Your task to perform on an android device: turn on the 12-hour format for clock Image 0: 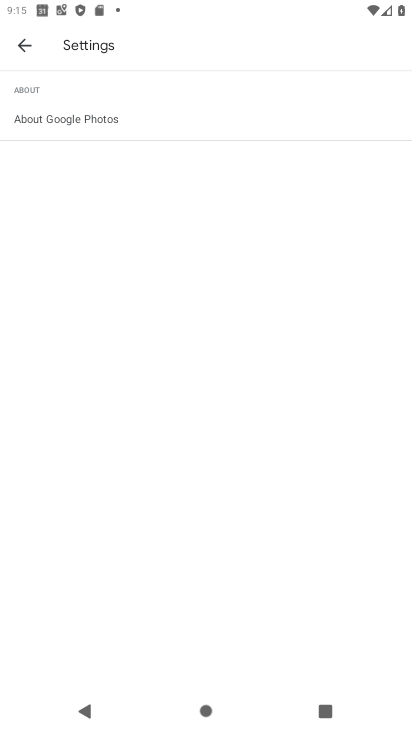
Step 0: press home button
Your task to perform on an android device: turn on the 12-hour format for clock Image 1: 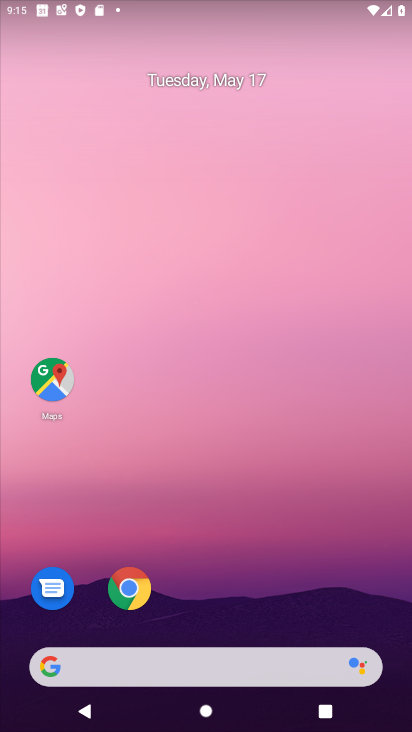
Step 1: drag from (219, 570) to (247, 211)
Your task to perform on an android device: turn on the 12-hour format for clock Image 2: 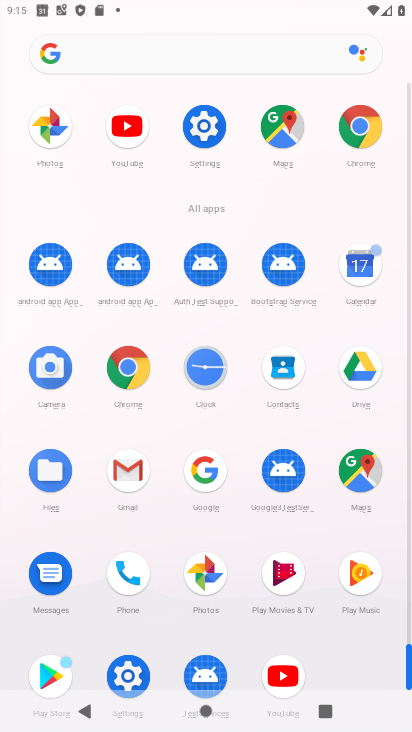
Step 2: click (361, 262)
Your task to perform on an android device: turn on the 12-hour format for clock Image 3: 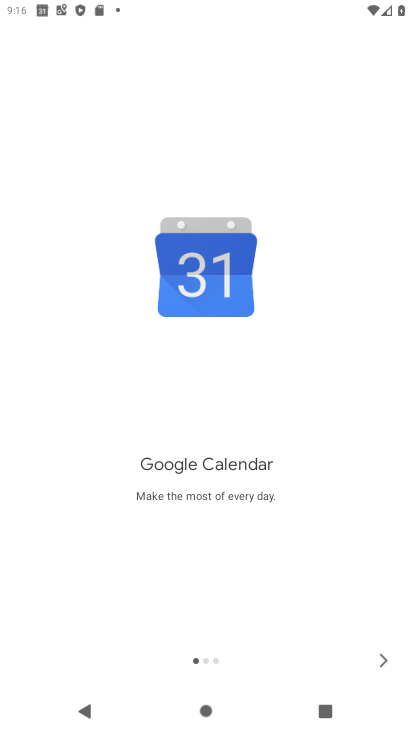
Step 3: click (372, 652)
Your task to perform on an android device: turn on the 12-hour format for clock Image 4: 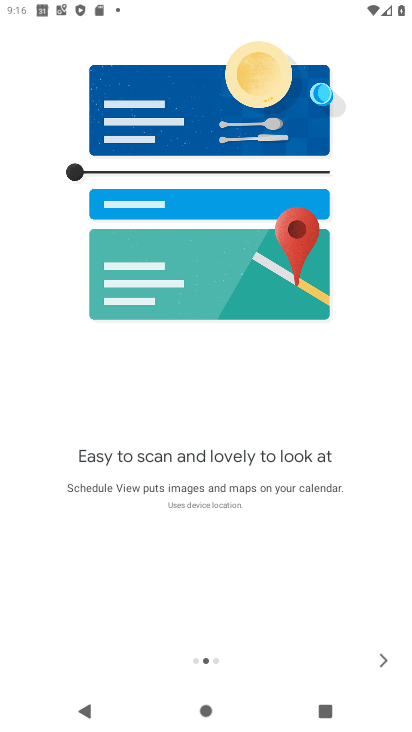
Step 4: click (367, 662)
Your task to perform on an android device: turn on the 12-hour format for clock Image 5: 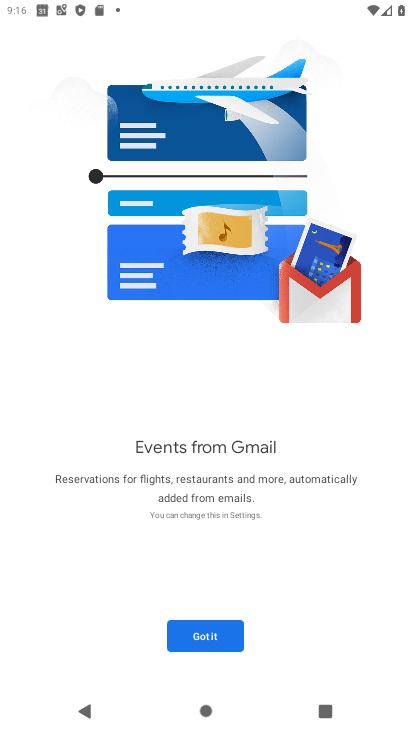
Step 5: click (226, 630)
Your task to perform on an android device: turn on the 12-hour format for clock Image 6: 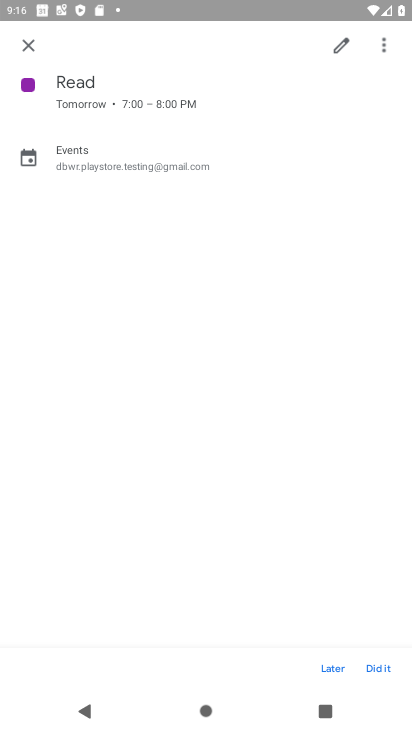
Step 6: click (29, 48)
Your task to perform on an android device: turn on the 12-hour format for clock Image 7: 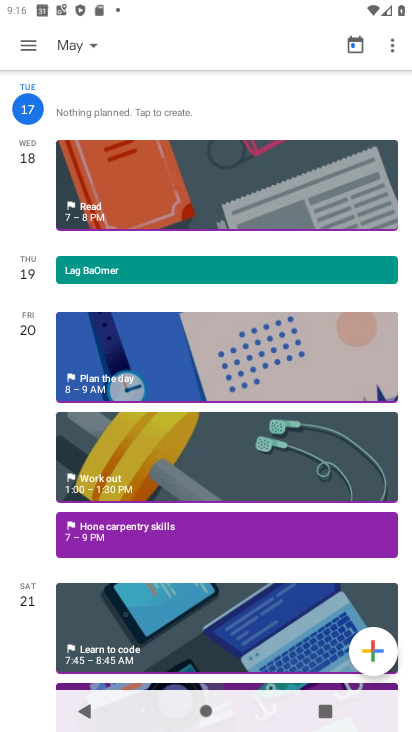
Step 7: click (388, 61)
Your task to perform on an android device: turn on the 12-hour format for clock Image 8: 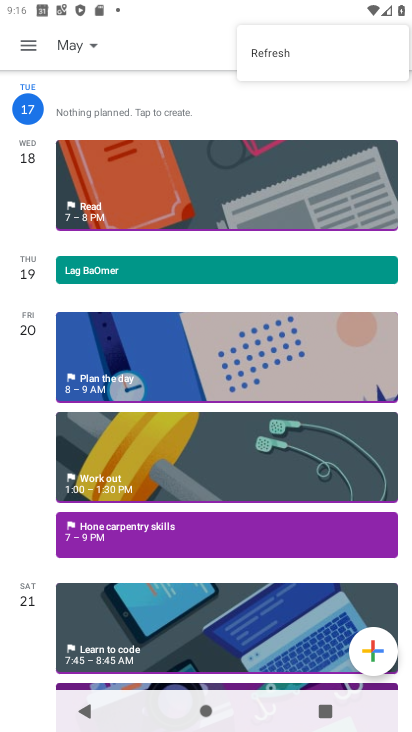
Step 8: click (144, 63)
Your task to perform on an android device: turn on the 12-hour format for clock Image 9: 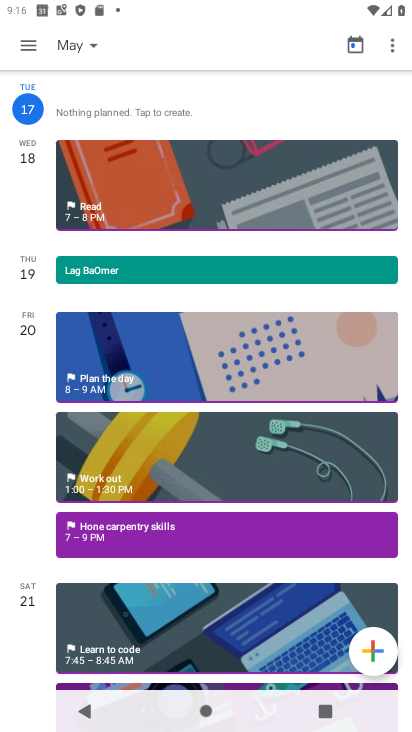
Step 9: click (25, 41)
Your task to perform on an android device: turn on the 12-hour format for clock Image 10: 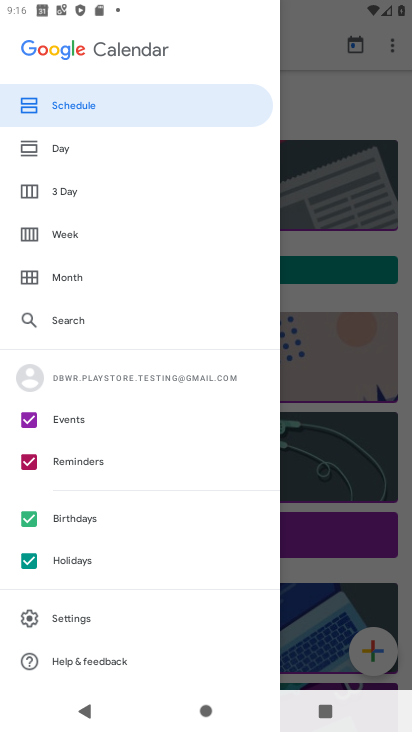
Step 10: press home button
Your task to perform on an android device: turn on the 12-hour format for clock Image 11: 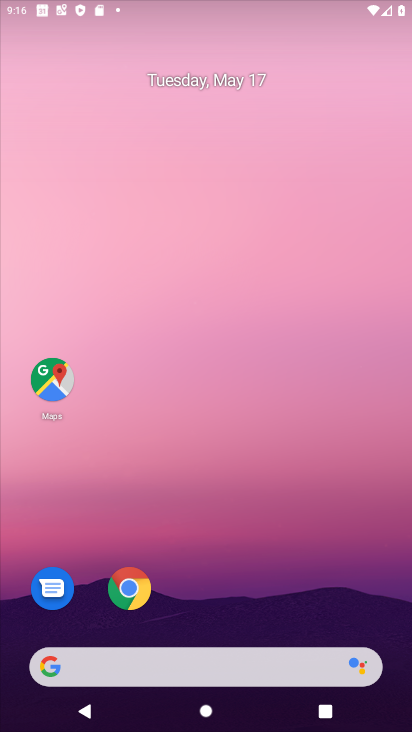
Step 11: drag from (268, 414) to (291, 181)
Your task to perform on an android device: turn on the 12-hour format for clock Image 12: 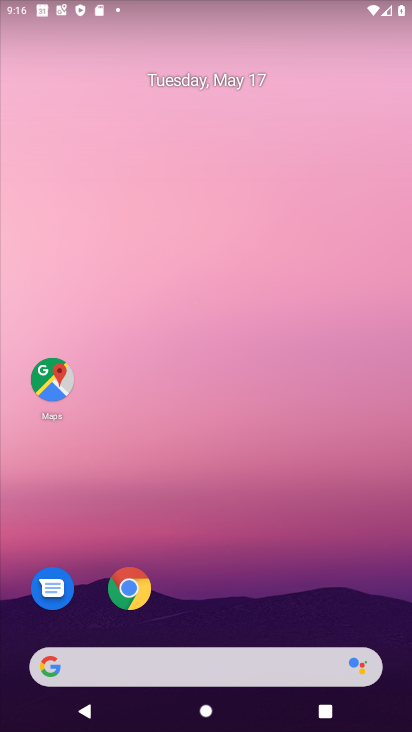
Step 12: drag from (290, 504) to (289, 224)
Your task to perform on an android device: turn on the 12-hour format for clock Image 13: 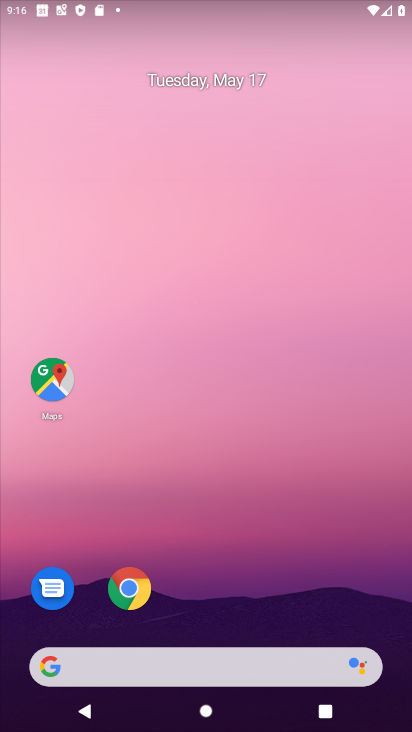
Step 13: drag from (314, 520) to (315, 190)
Your task to perform on an android device: turn on the 12-hour format for clock Image 14: 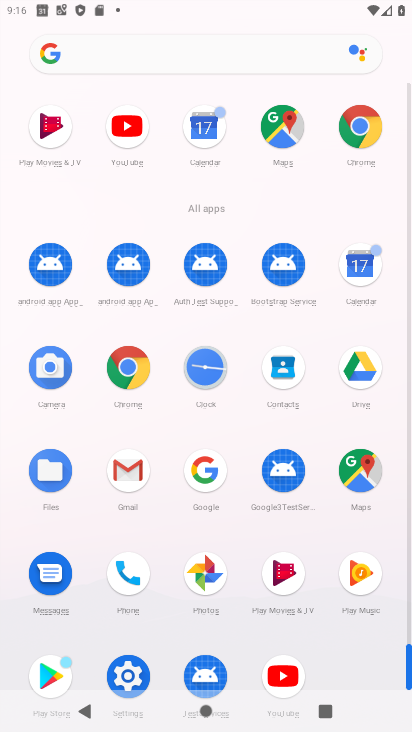
Step 14: click (202, 363)
Your task to perform on an android device: turn on the 12-hour format for clock Image 15: 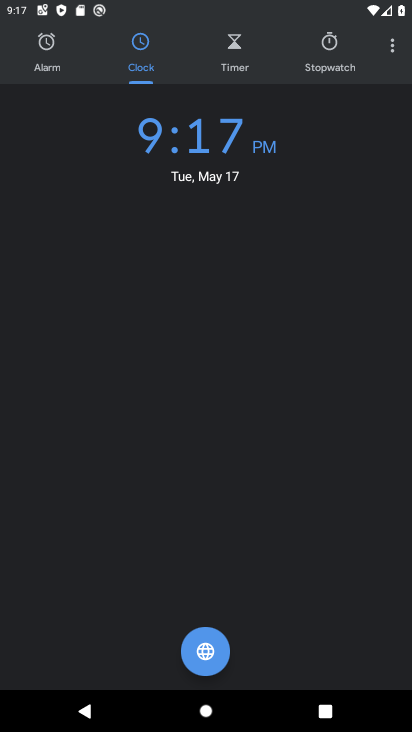
Step 15: click (384, 53)
Your task to perform on an android device: turn on the 12-hour format for clock Image 16: 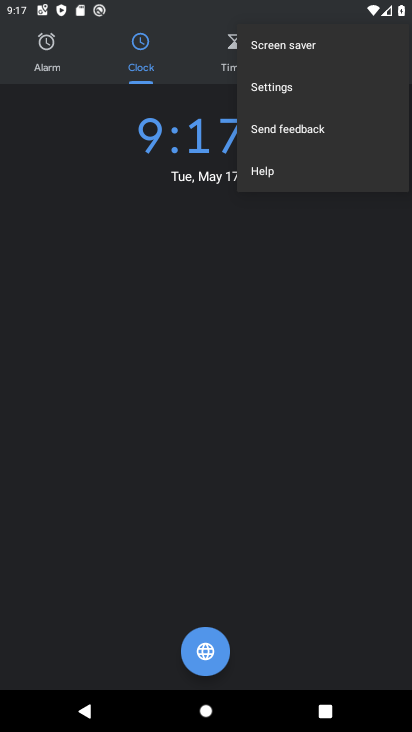
Step 16: click (256, 94)
Your task to perform on an android device: turn on the 12-hour format for clock Image 17: 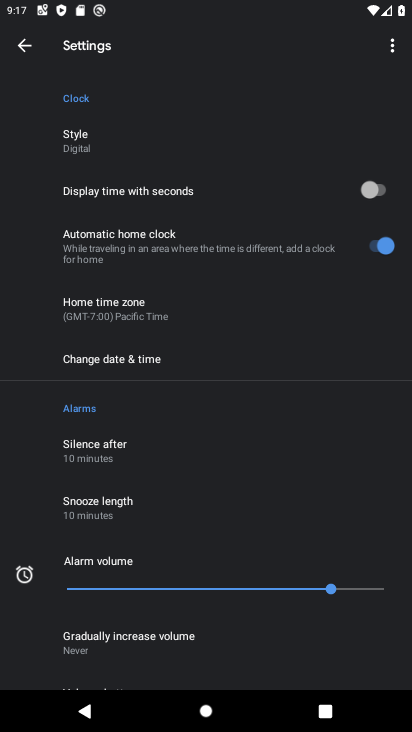
Step 17: drag from (211, 470) to (285, 134)
Your task to perform on an android device: turn on the 12-hour format for clock Image 18: 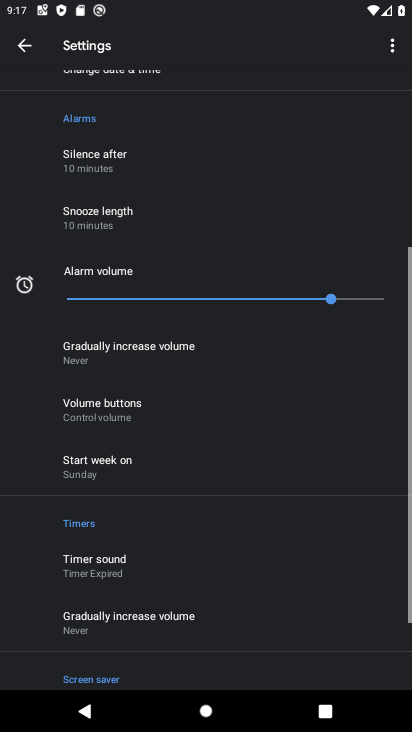
Step 18: drag from (286, 135) to (284, 649)
Your task to perform on an android device: turn on the 12-hour format for clock Image 19: 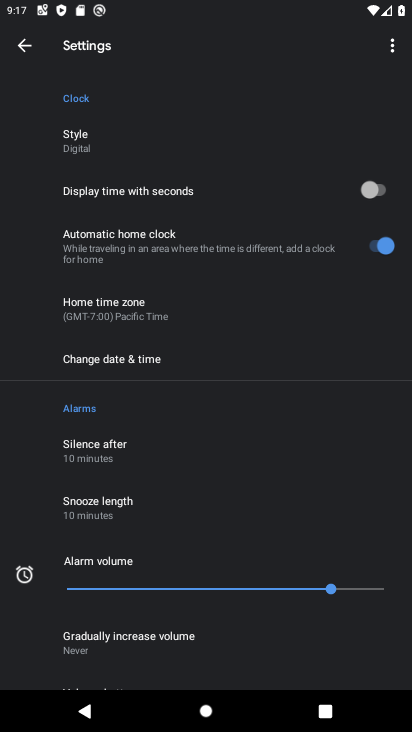
Step 19: click (151, 359)
Your task to perform on an android device: turn on the 12-hour format for clock Image 20: 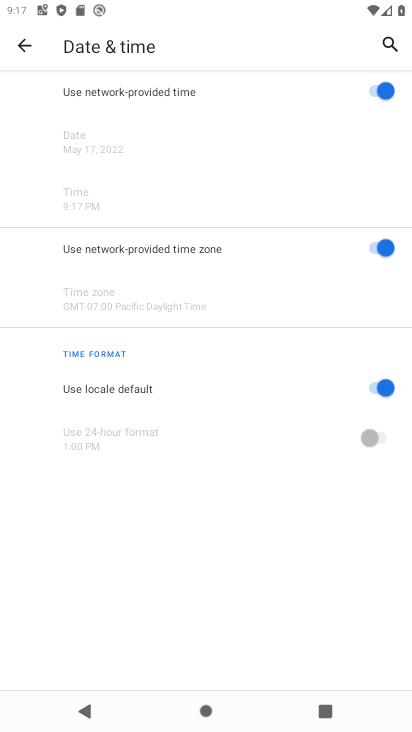
Step 20: click (374, 391)
Your task to perform on an android device: turn on the 12-hour format for clock Image 21: 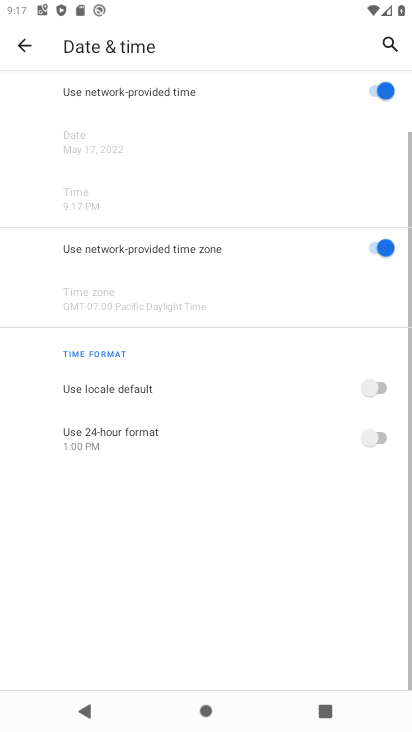
Step 21: click (382, 440)
Your task to perform on an android device: turn on the 12-hour format for clock Image 22: 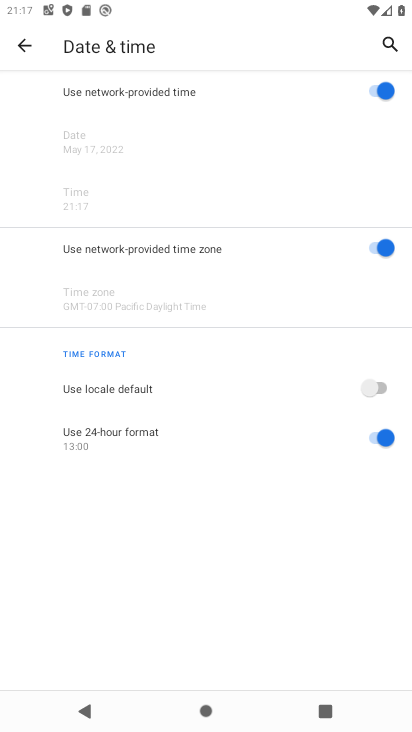
Step 22: task complete